Your task to perform on an android device: set the timer Image 0: 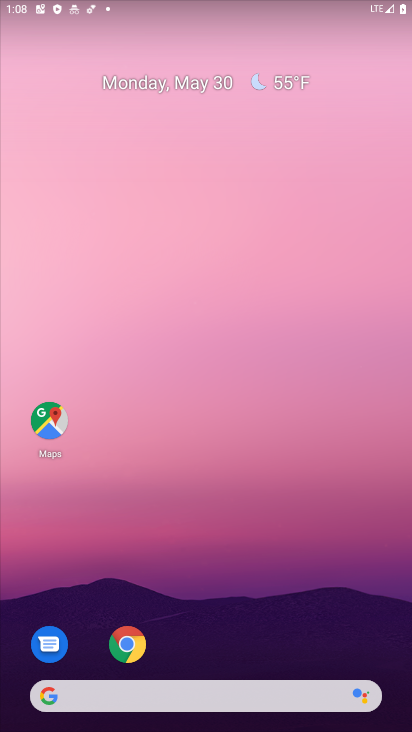
Step 0: drag from (359, 611) to (69, 140)
Your task to perform on an android device: set the timer Image 1: 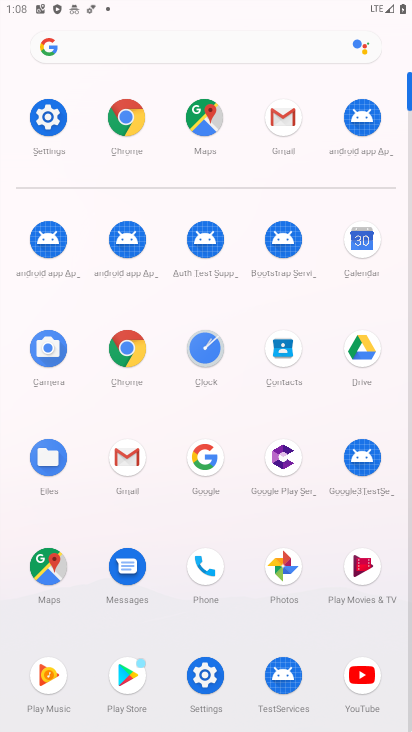
Step 1: click (219, 345)
Your task to perform on an android device: set the timer Image 2: 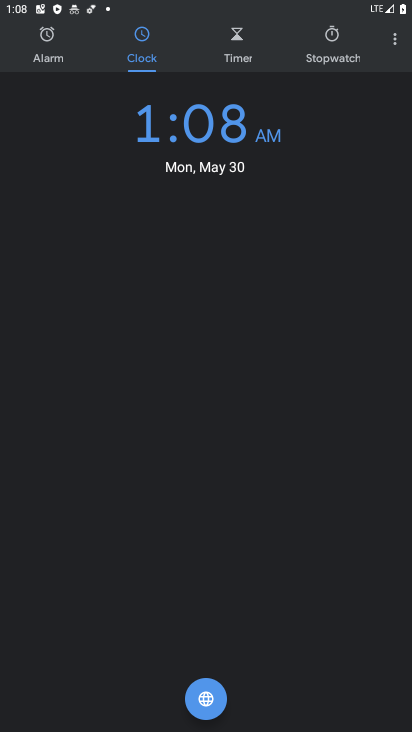
Step 2: click (234, 51)
Your task to perform on an android device: set the timer Image 3: 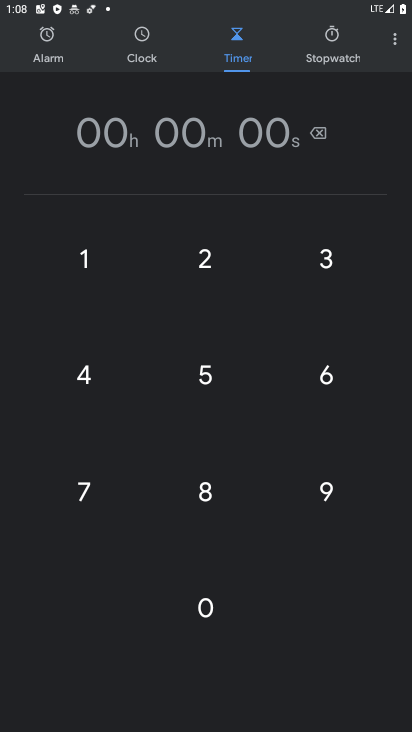
Step 3: task complete